Your task to perform on an android device: Is it going to rain today? Image 0: 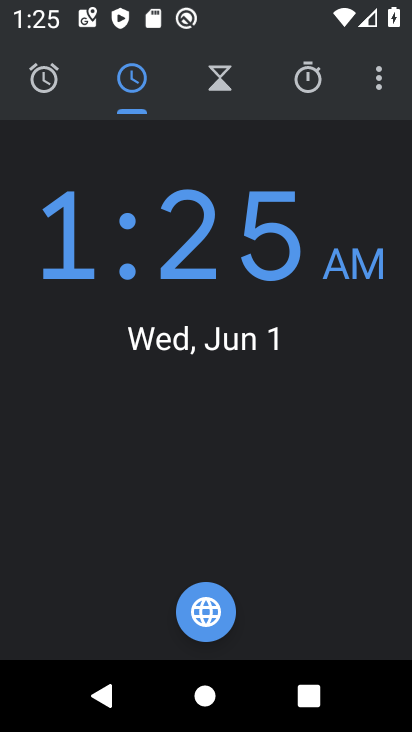
Step 0: press back button
Your task to perform on an android device: Is it going to rain today? Image 1: 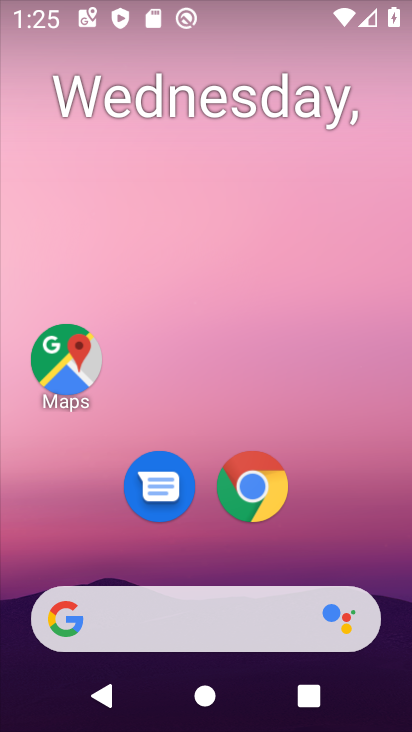
Step 1: click (168, 615)
Your task to perform on an android device: Is it going to rain today? Image 2: 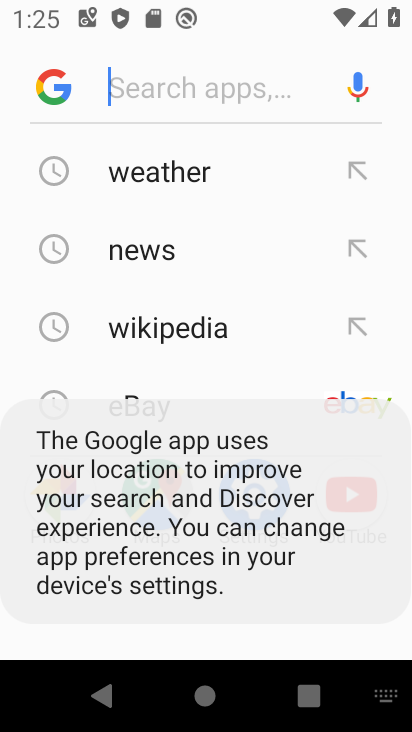
Step 2: click (161, 168)
Your task to perform on an android device: Is it going to rain today? Image 3: 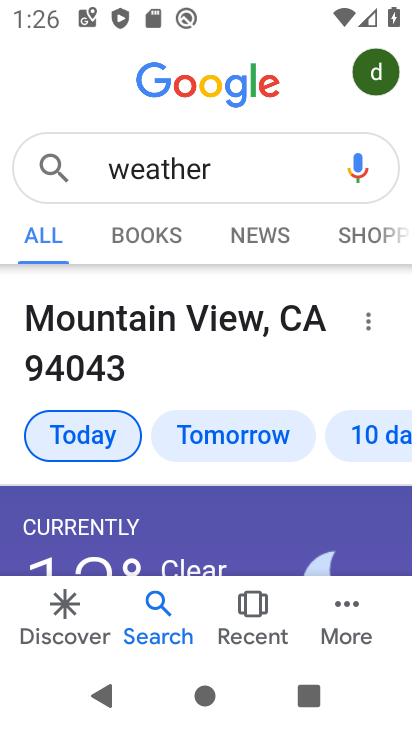
Step 3: task complete